Your task to perform on an android device: toggle notifications settings in the gmail app Image 0: 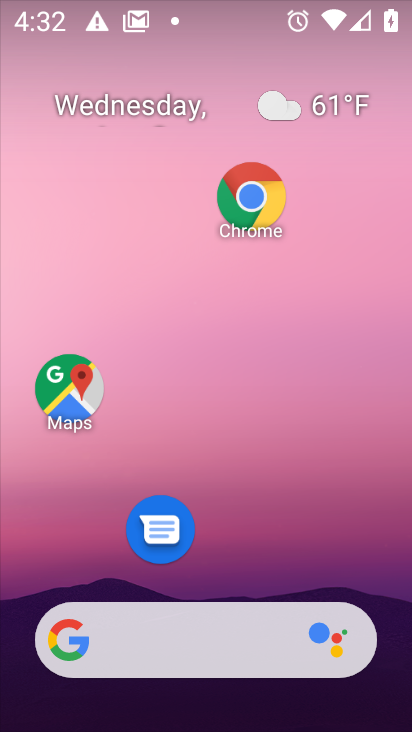
Step 0: click (404, 336)
Your task to perform on an android device: toggle notifications settings in the gmail app Image 1: 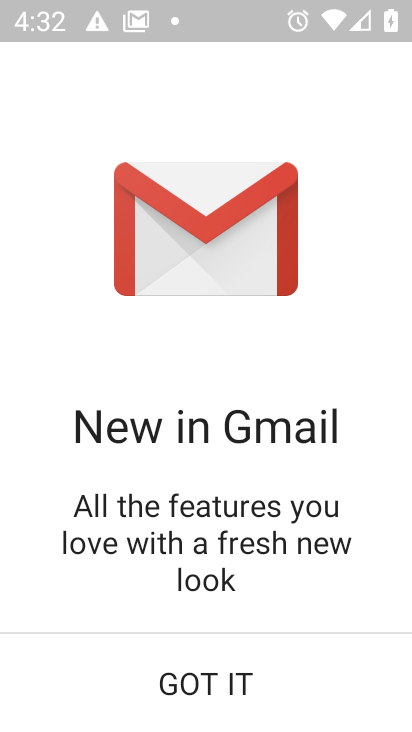
Step 1: click (237, 676)
Your task to perform on an android device: toggle notifications settings in the gmail app Image 2: 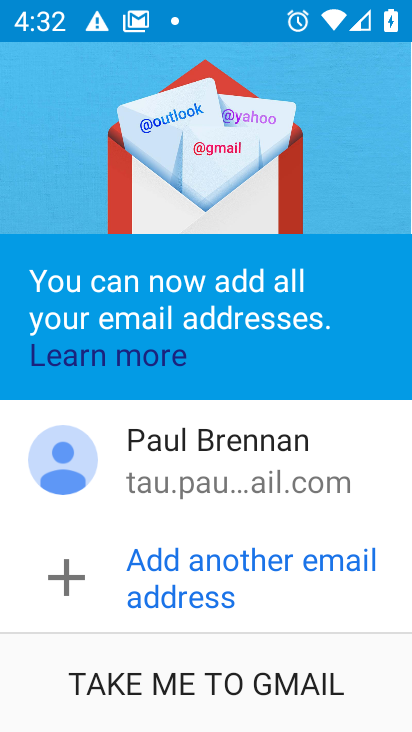
Step 2: click (250, 680)
Your task to perform on an android device: toggle notifications settings in the gmail app Image 3: 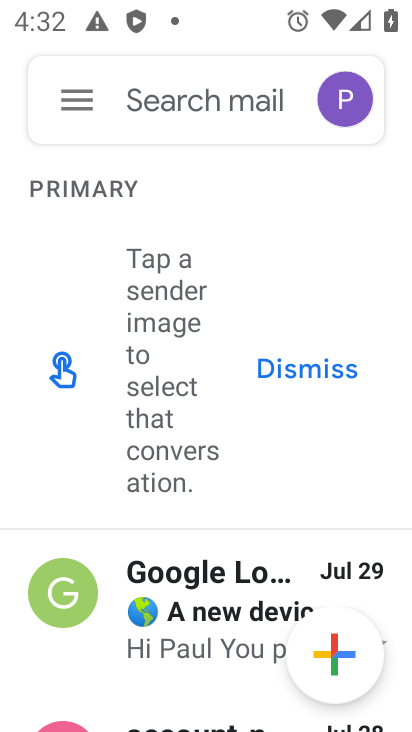
Step 3: click (76, 84)
Your task to perform on an android device: toggle notifications settings in the gmail app Image 4: 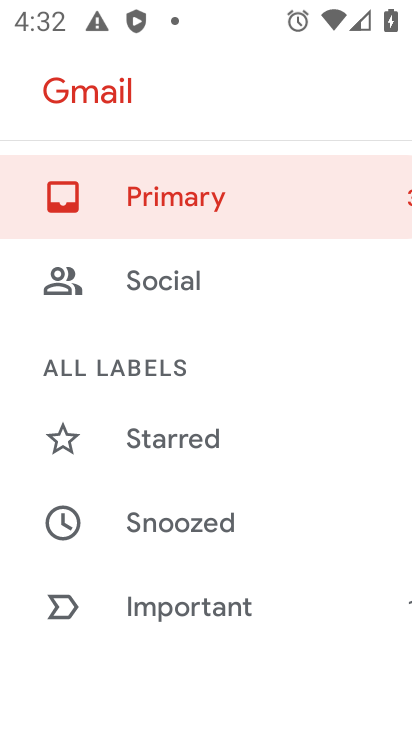
Step 4: drag from (166, 596) to (214, 28)
Your task to perform on an android device: toggle notifications settings in the gmail app Image 5: 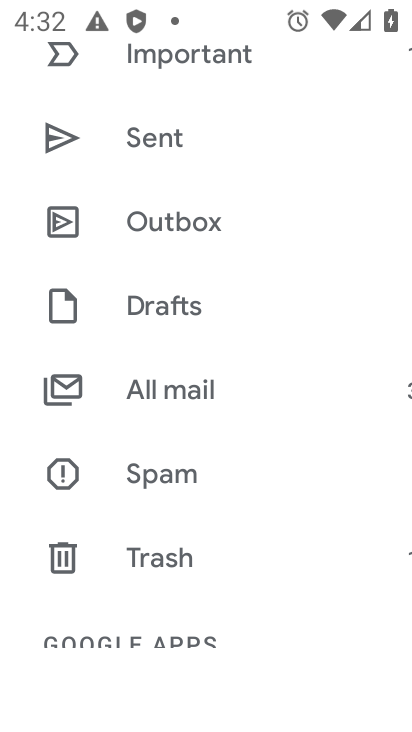
Step 5: drag from (162, 522) to (201, 0)
Your task to perform on an android device: toggle notifications settings in the gmail app Image 6: 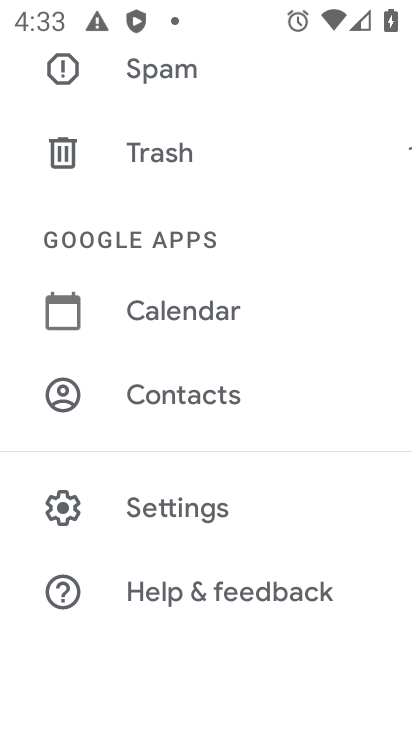
Step 6: click (174, 518)
Your task to perform on an android device: toggle notifications settings in the gmail app Image 7: 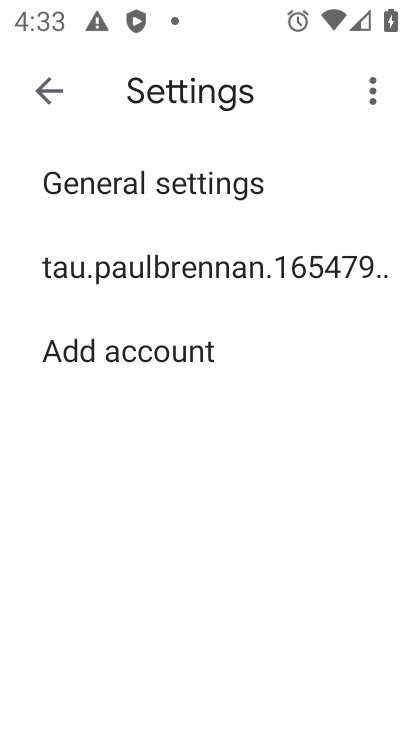
Step 7: click (155, 183)
Your task to perform on an android device: toggle notifications settings in the gmail app Image 8: 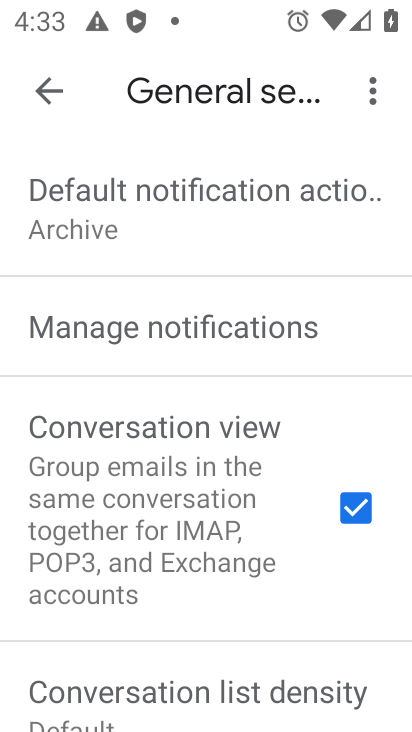
Step 8: click (123, 323)
Your task to perform on an android device: toggle notifications settings in the gmail app Image 9: 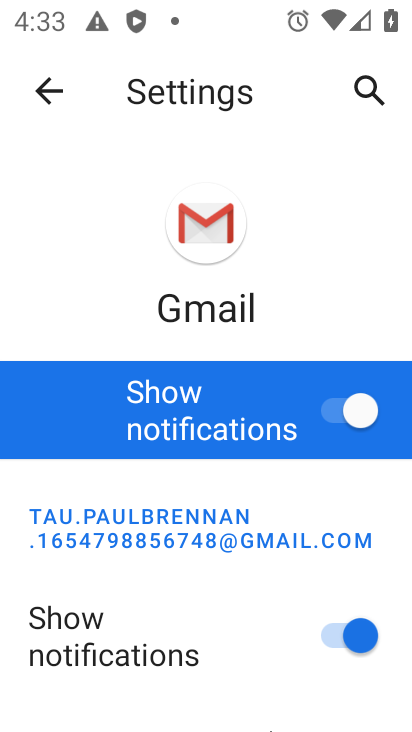
Step 9: drag from (224, 479) to (212, 317)
Your task to perform on an android device: toggle notifications settings in the gmail app Image 10: 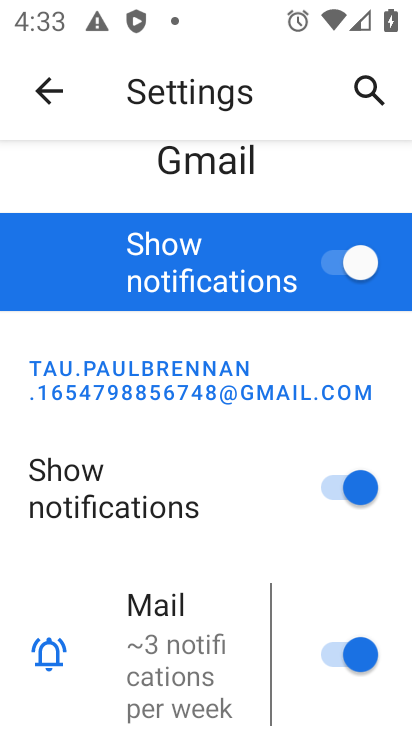
Step 10: click (320, 251)
Your task to perform on an android device: toggle notifications settings in the gmail app Image 11: 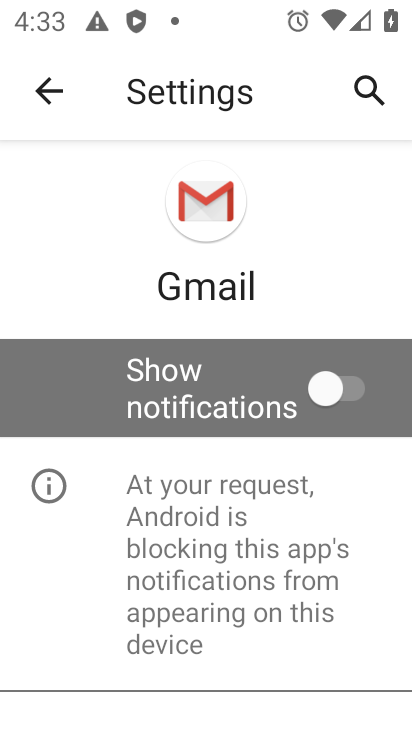
Step 11: task complete